Your task to perform on an android device: install app "Google Play services" Image 0: 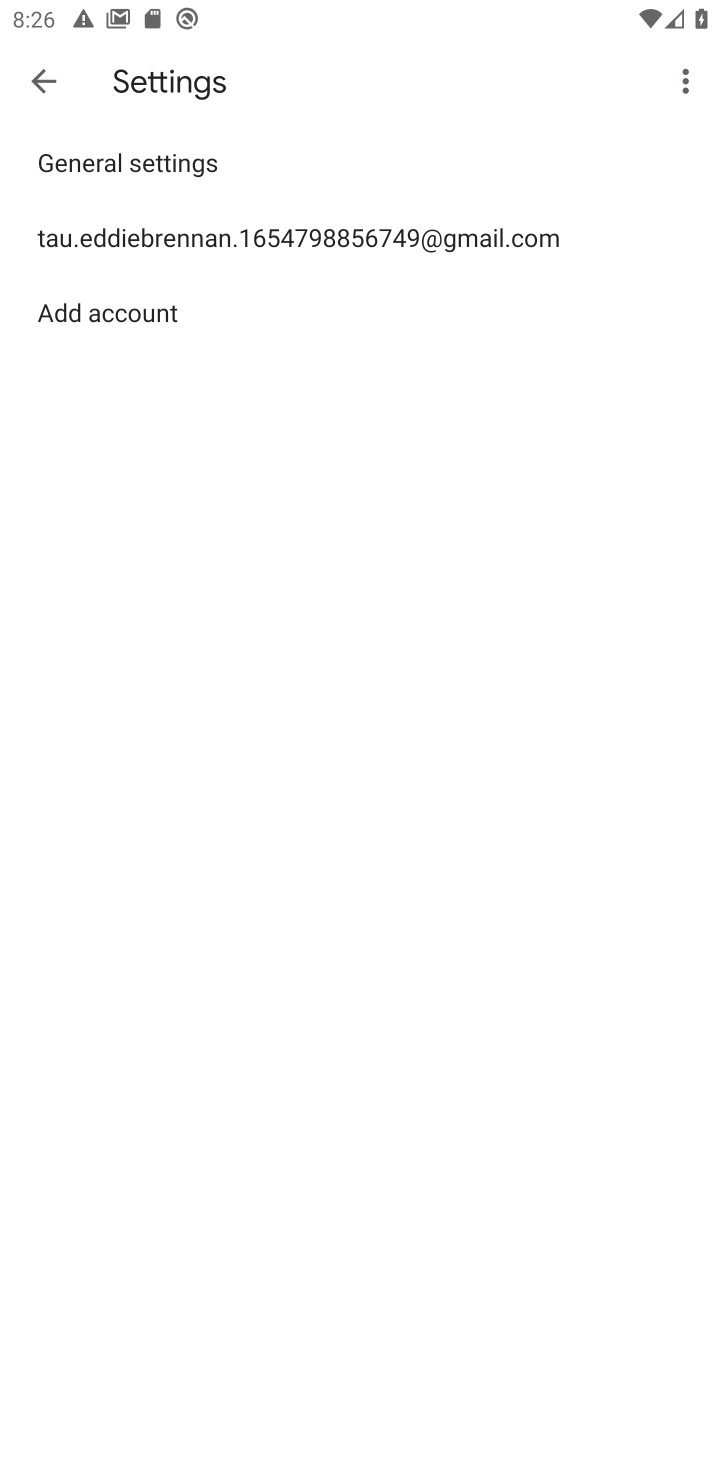
Step 0: press home button
Your task to perform on an android device: install app "Google Play services" Image 1: 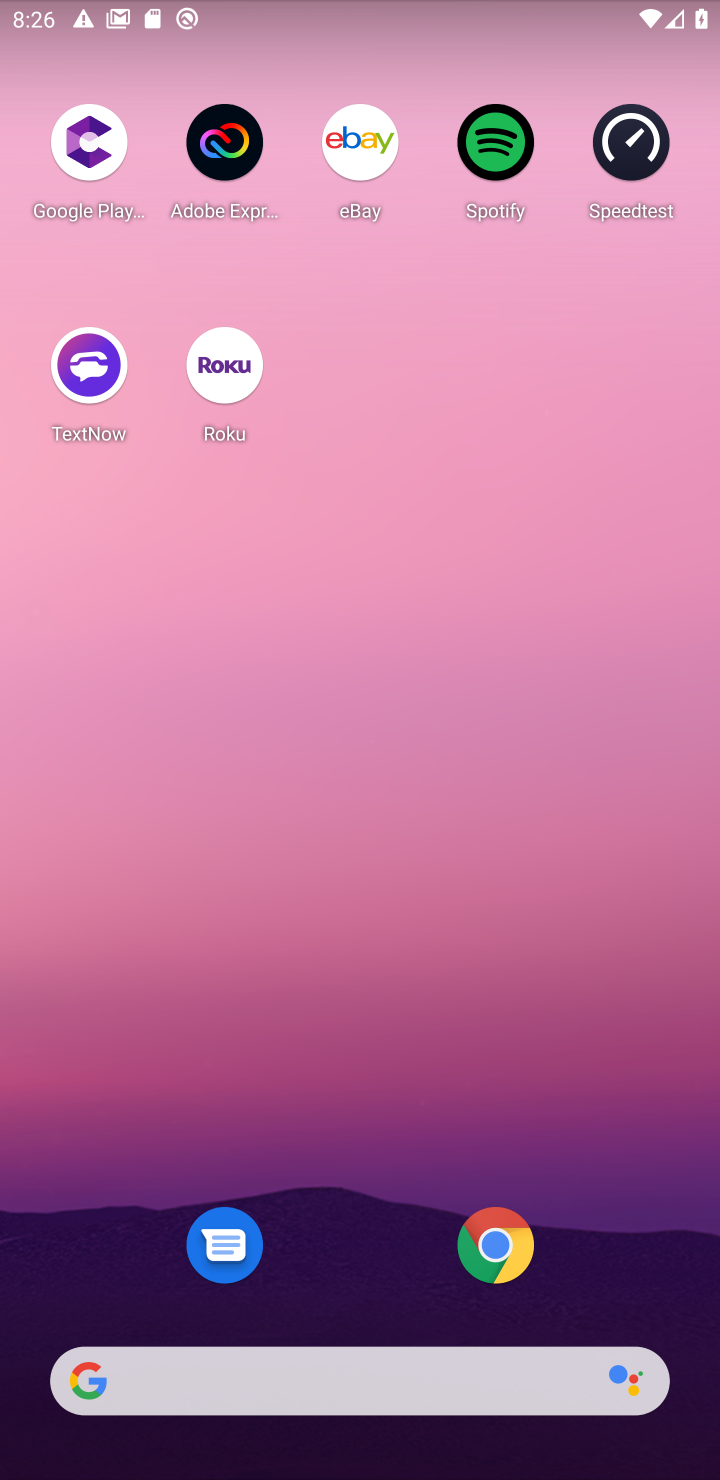
Step 1: drag from (318, 1331) to (121, 45)
Your task to perform on an android device: install app "Google Play services" Image 2: 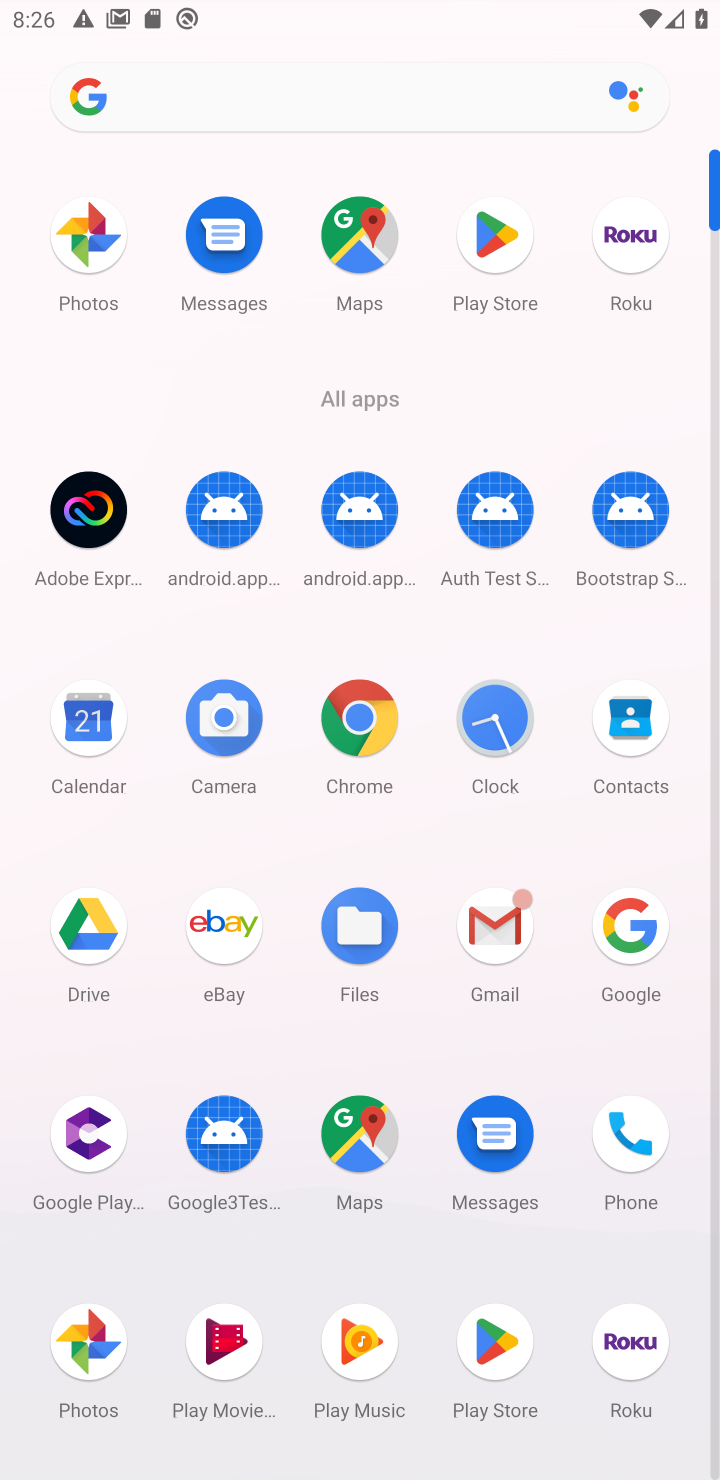
Step 2: click (479, 1372)
Your task to perform on an android device: install app "Google Play services" Image 3: 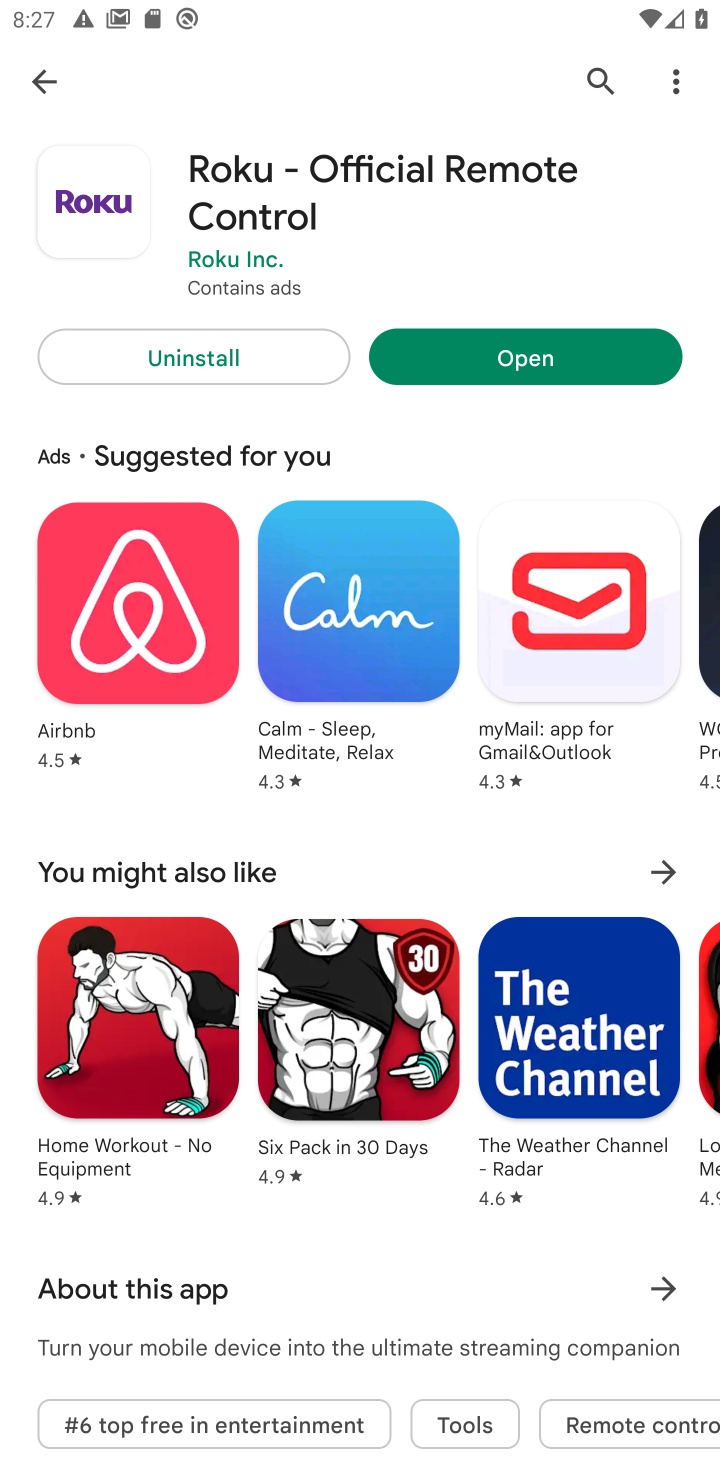
Step 3: click (41, 64)
Your task to perform on an android device: install app "Google Play services" Image 4: 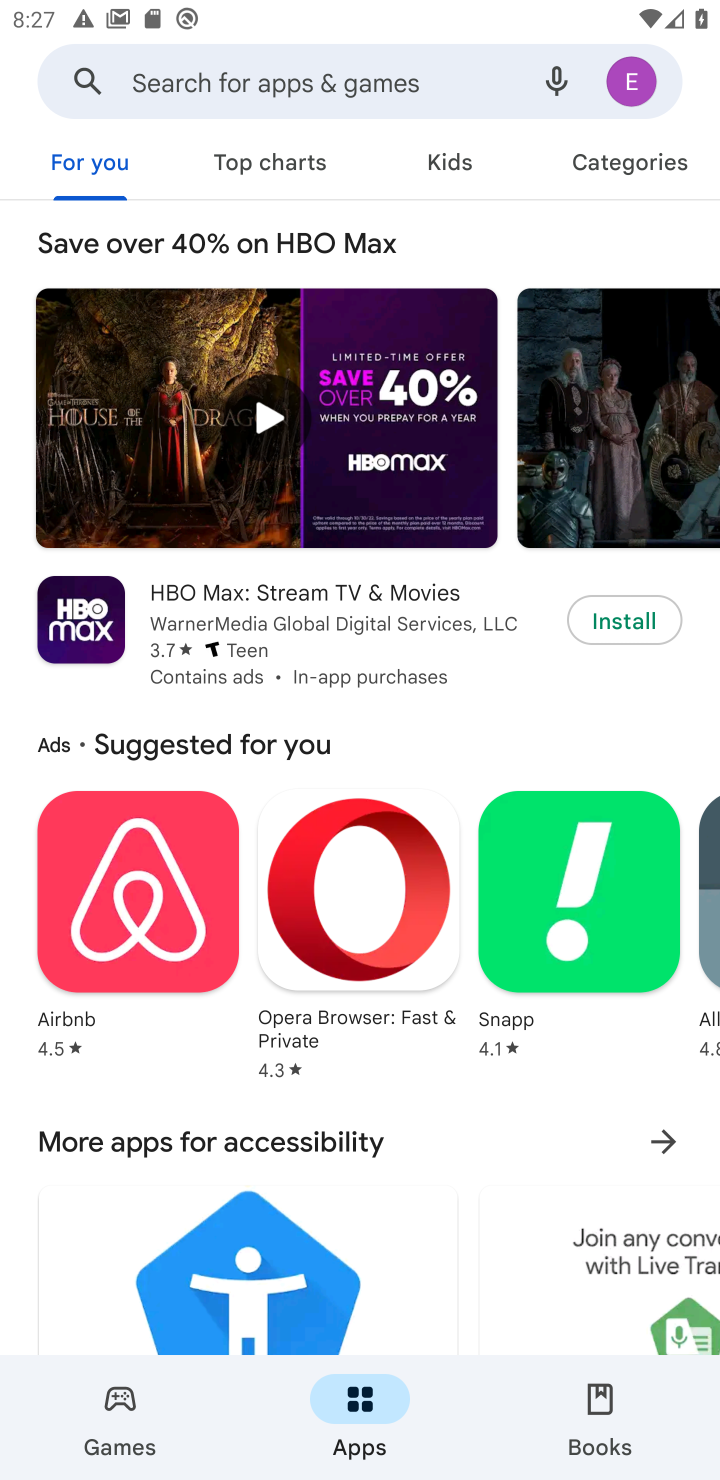
Step 4: click (133, 78)
Your task to perform on an android device: install app "Google Play services" Image 5: 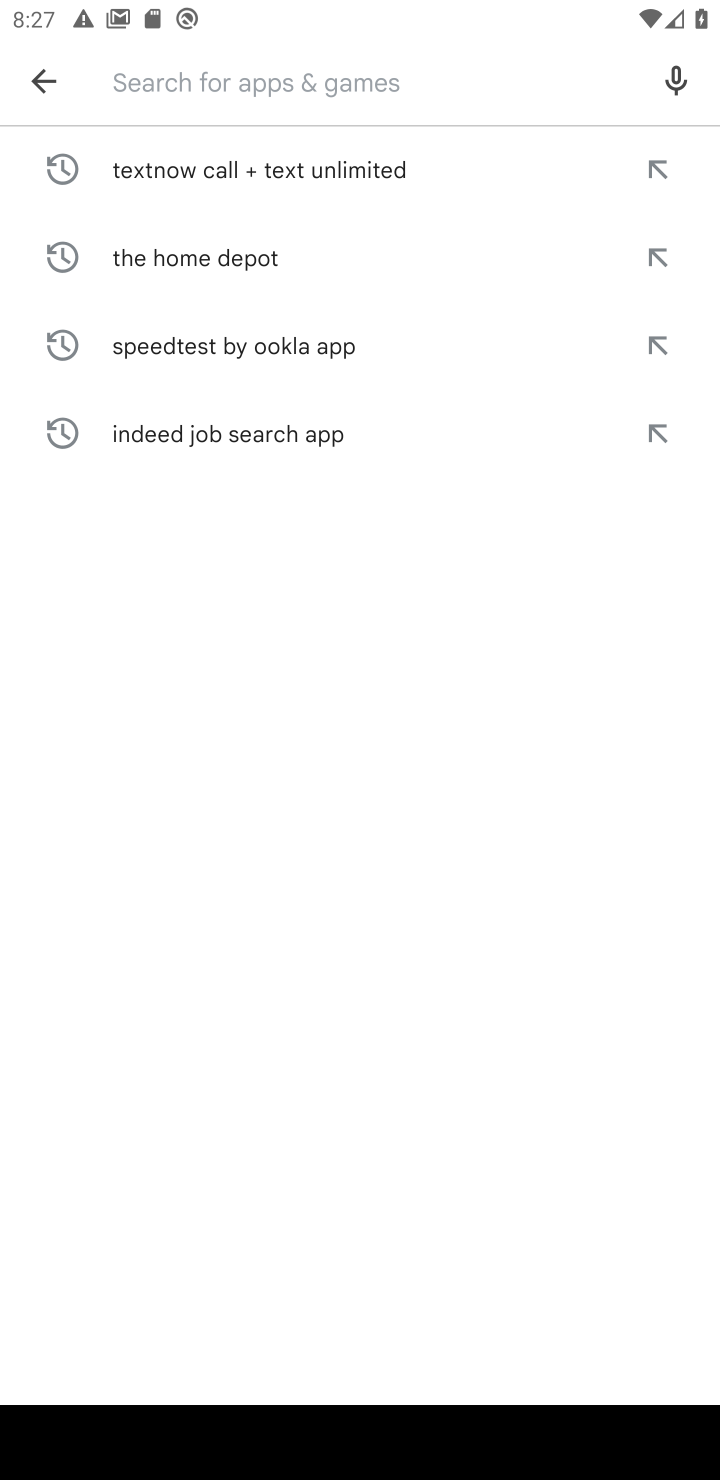
Step 5: type "Google Play services"
Your task to perform on an android device: install app "Google Play services" Image 6: 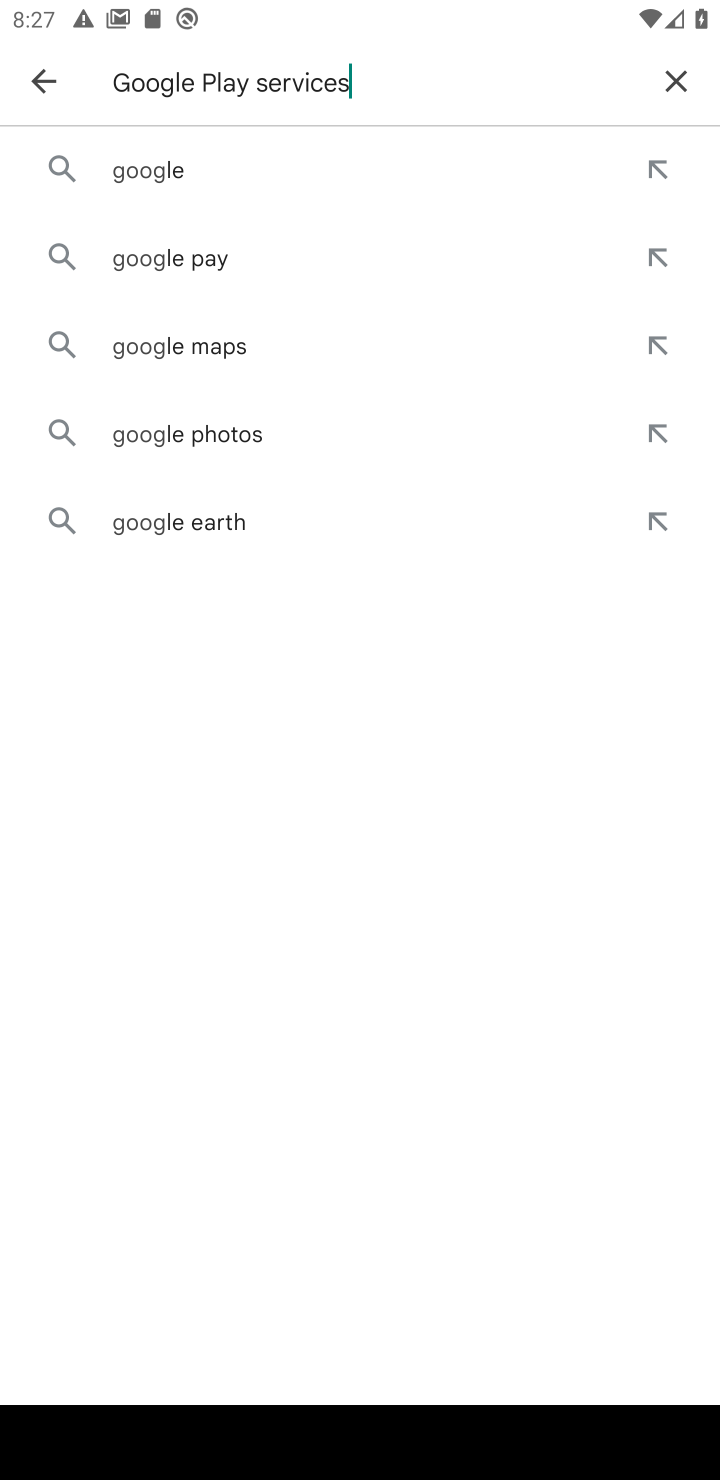
Step 6: type ""
Your task to perform on an android device: install app "Google Play services" Image 7: 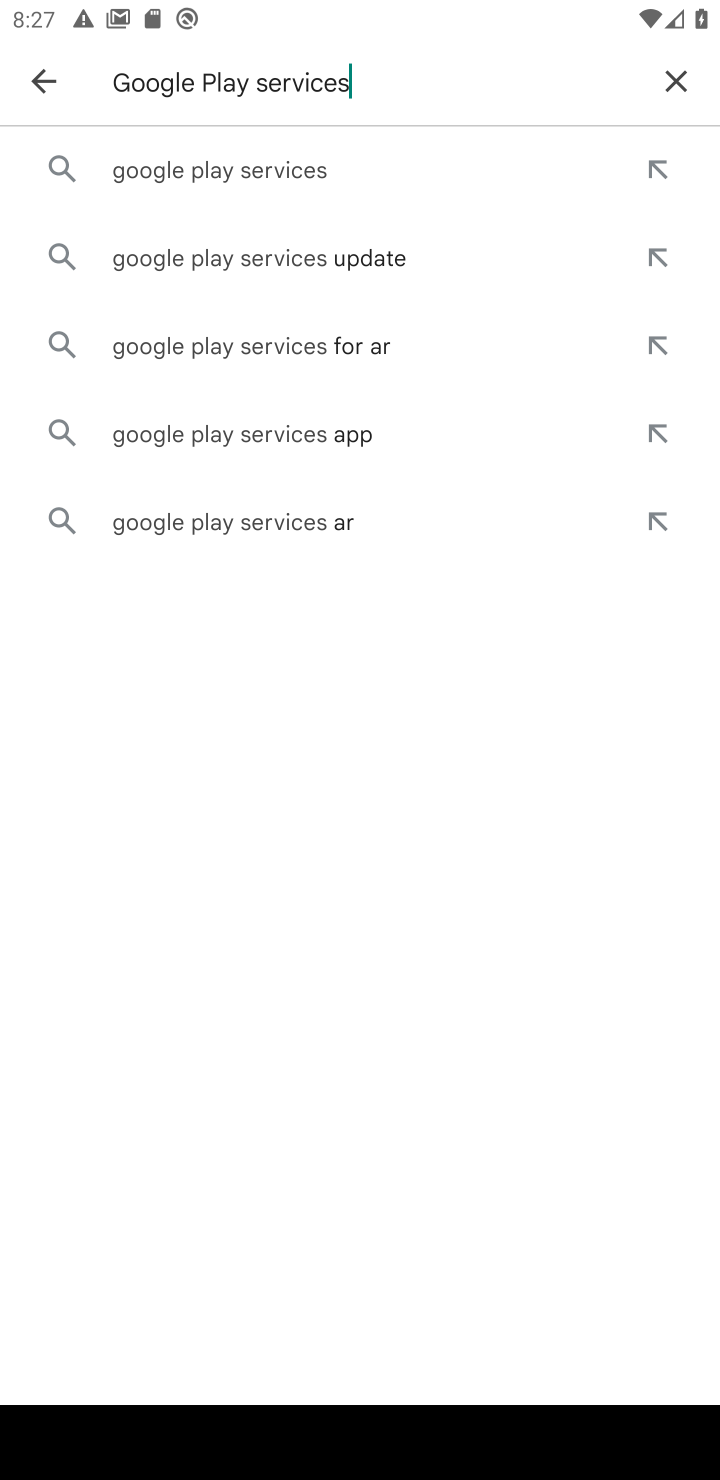
Step 7: click (146, 163)
Your task to perform on an android device: install app "Google Play services" Image 8: 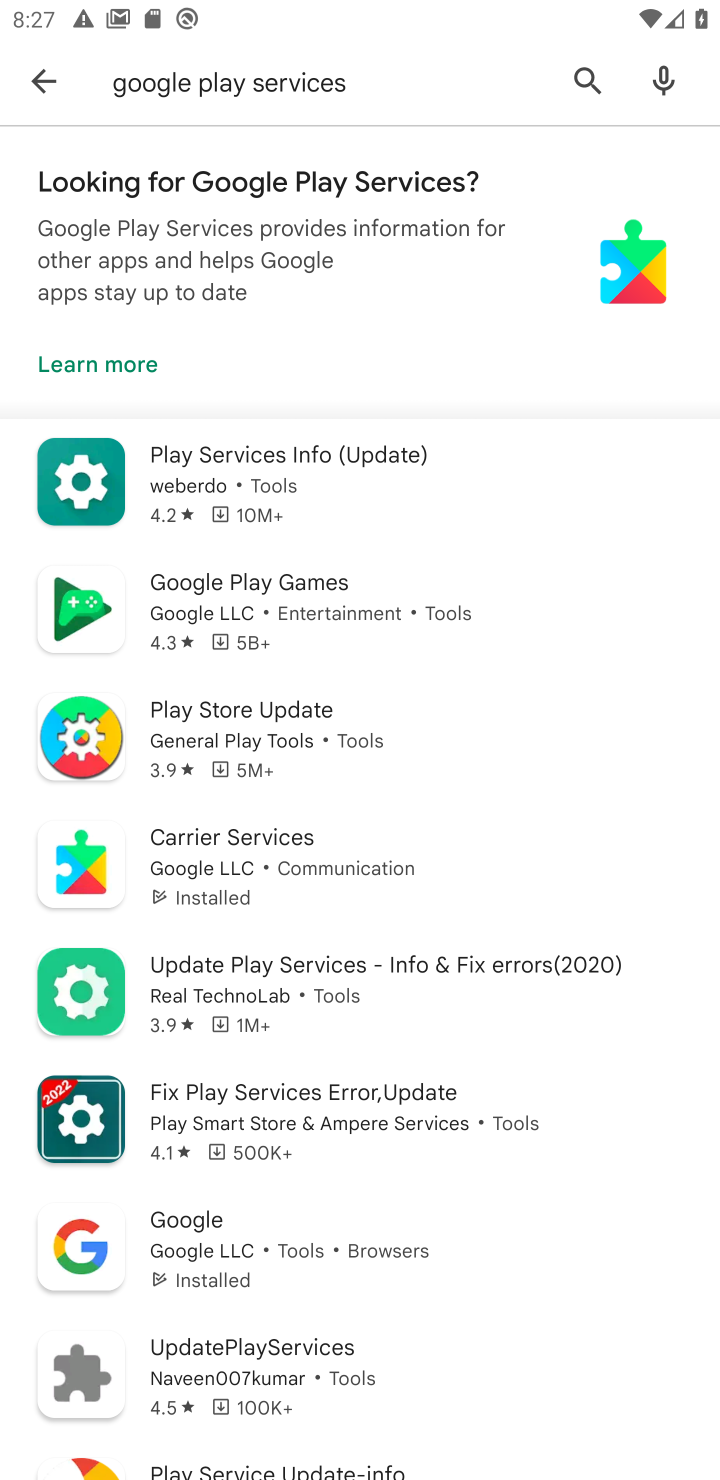
Step 8: task complete